Your task to perform on an android device: add a label to a message in the gmail app Image 0: 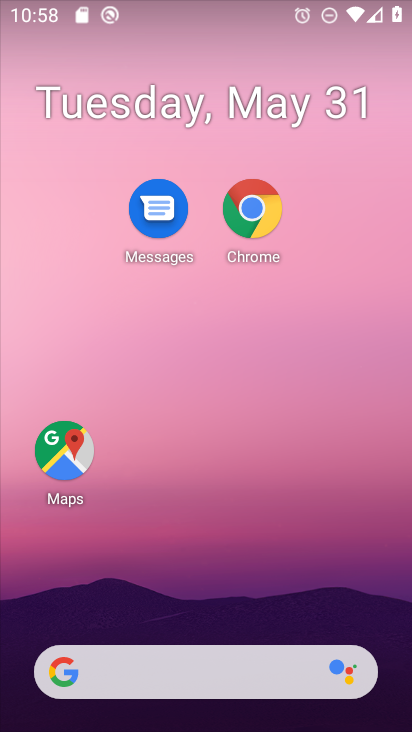
Step 0: press home button
Your task to perform on an android device: add a label to a message in the gmail app Image 1: 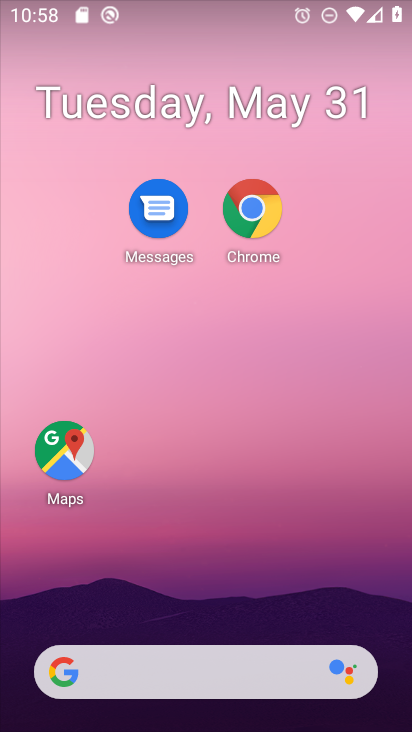
Step 1: drag from (212, 634) to (262, 58)
Your task to perform on an android device: add a label to a message in the gmail app Image 2: 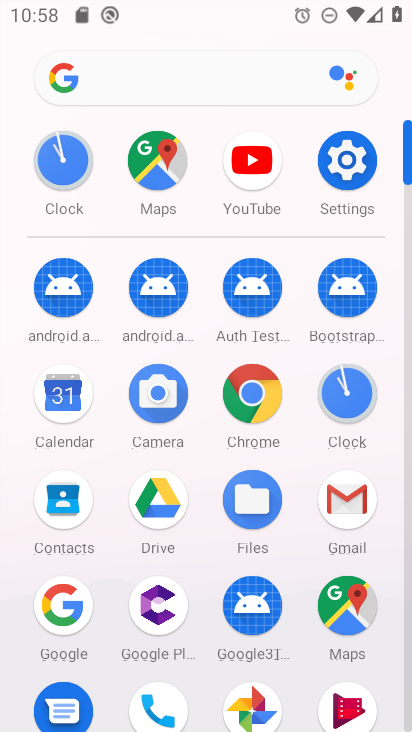
Step 2: click (345, 490)
Your task to perform on an android device: add a label to a message in the gmail app Image 3: 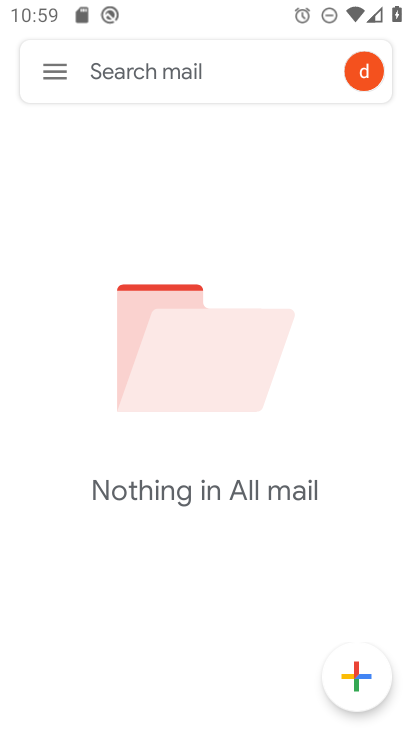
Step 3: task complete